Your task to perform on an android device: Go to sound settings Image 0: 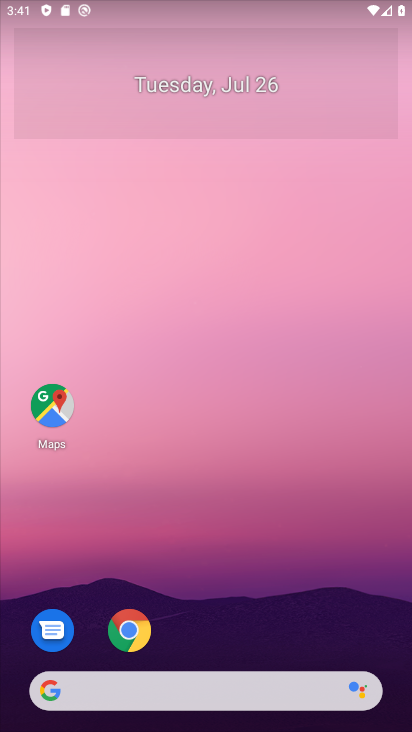
Step 0: drag from (215, 613) to (184, 166)
Your task to perform on an android device: Go to sound settings Image 1: 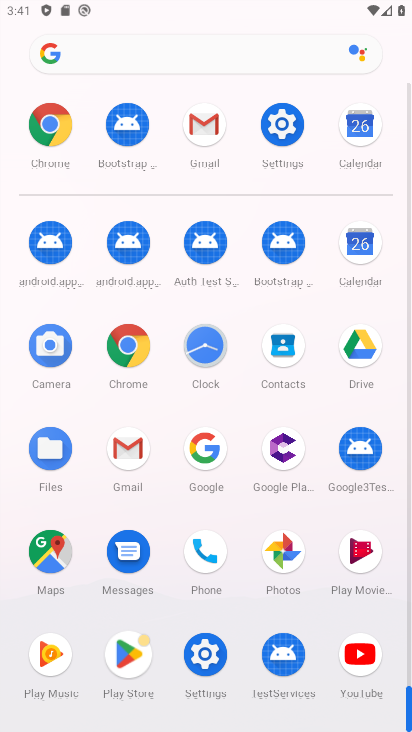
Step 1: click (276, 118)
Your task to perform on an android device: Go to sound settings Image 2: 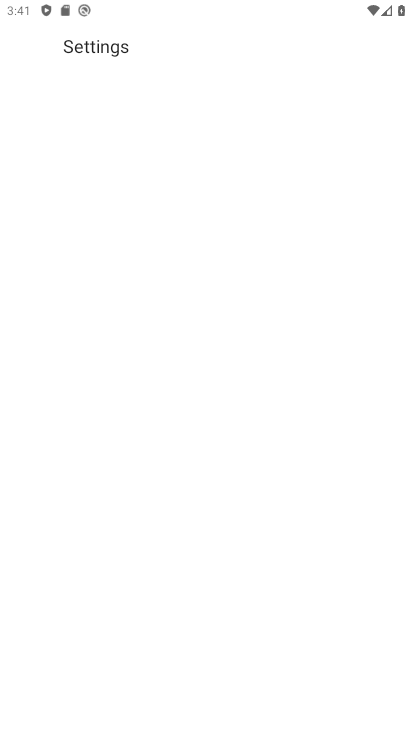
Step 2: click (276, 118)
Your task to perform on an android device: Go to sound settings Image 3: 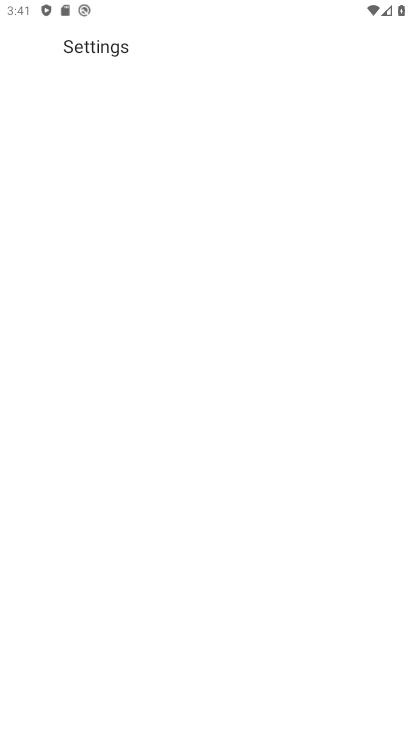
Step 3: click (276, 118)
Your task to perform on an android device: Go to sound settings Image 4: 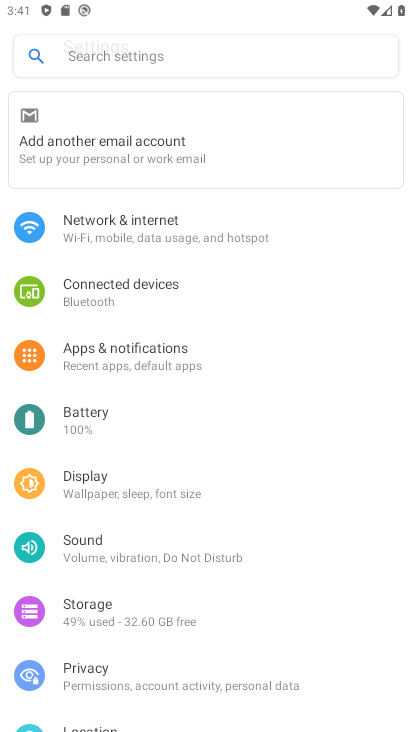
Step 4: click (276, 118)
Your task to perform on an android device: Go to sound settings Image 5: 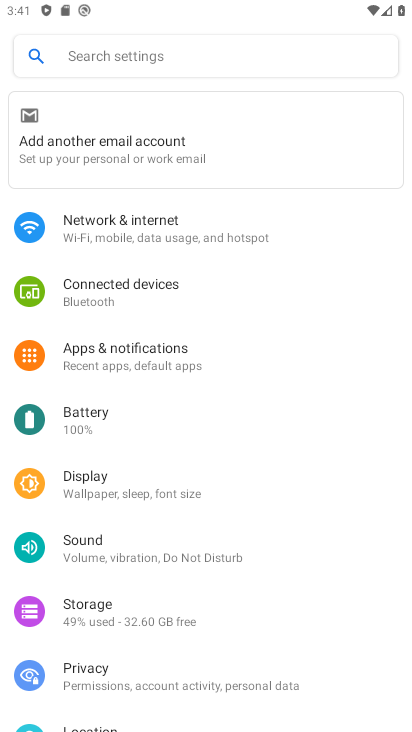
Step 5: click (89, 546)
Your task to perform on an android device: Go to sound settings Image 6: 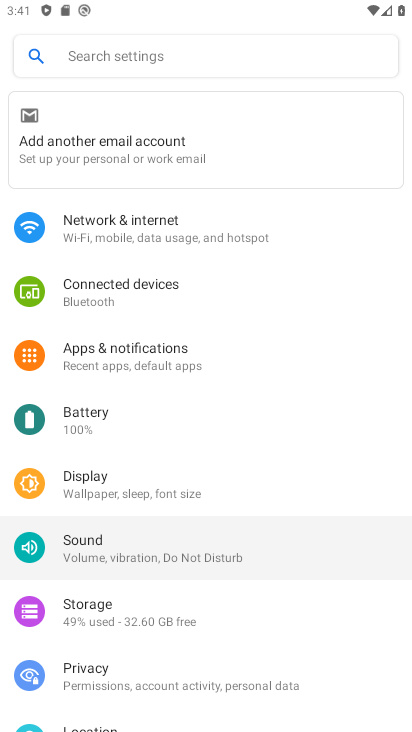
Step 6: click (88, 548)
Your task to perform on an android device: Go to sound settings Image 7: 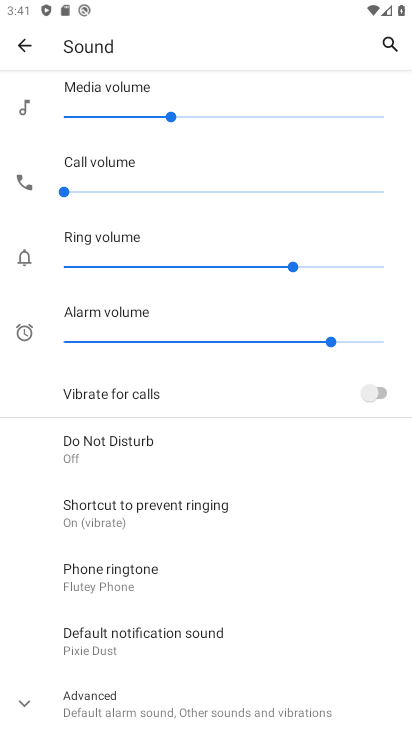
Step 7: task complete